Your task to perform on an android device: Toggle the flashlight Image 0: 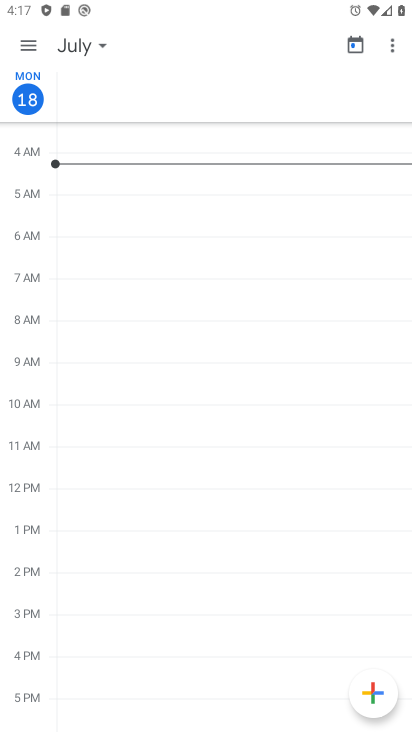
Step 0: press home button
Your task to perform on an android device: Toggle the flashlight Image 1: 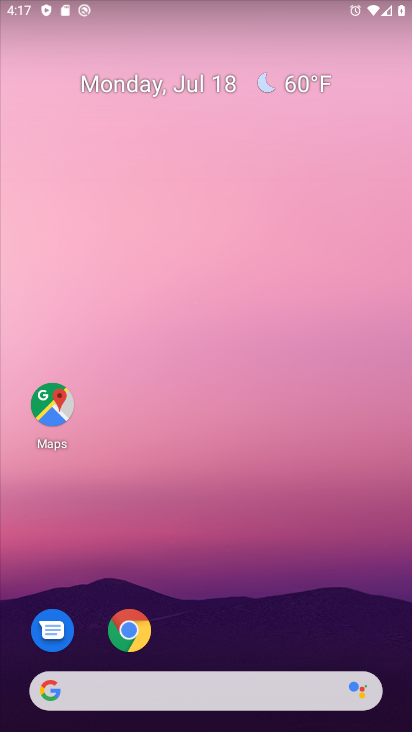
Step 1: drag from (226, 600) to (170, 138)
Your task to perform on an android device: Toggle the flashlight Image 2: 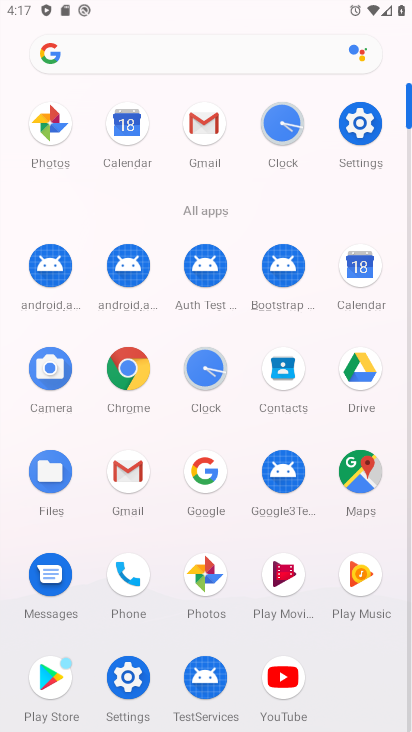
Step 2: click (358, 123)
Your task to perform on an android device: Toggle the flashlight Image 3: 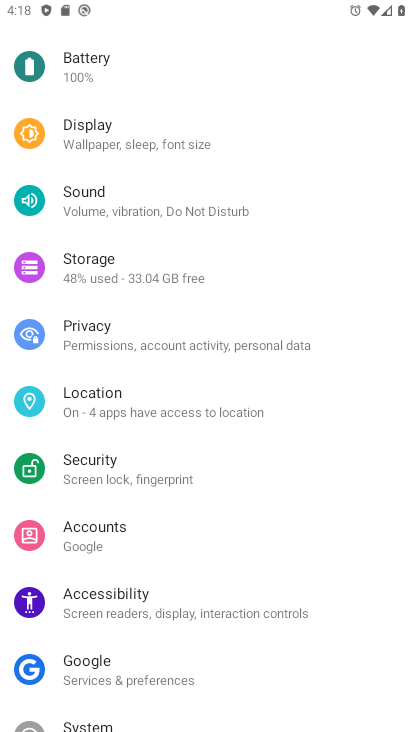
Step 3: click (103, 124)
Your task to perform on an android device: Toggle the flashlight Image 4: 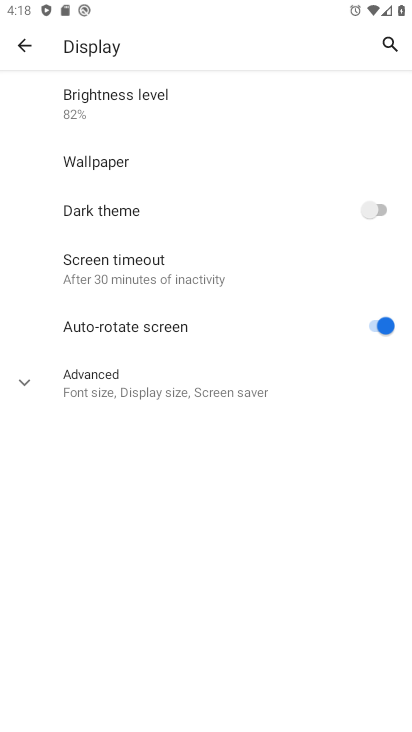
Step 4: task complete